Your task to perform on an android device: move a message to another label in the gmail app Image 0: 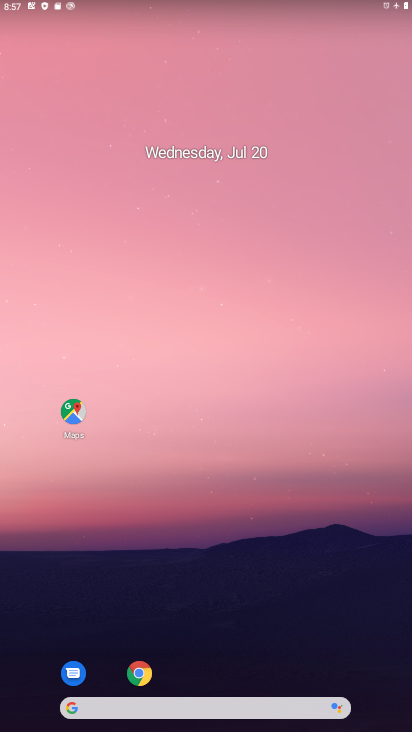
Step 0: drag from (212, 718) to (271, 233)
Your task to perform on an android device: move a message to another label in the gmail app Image 1: 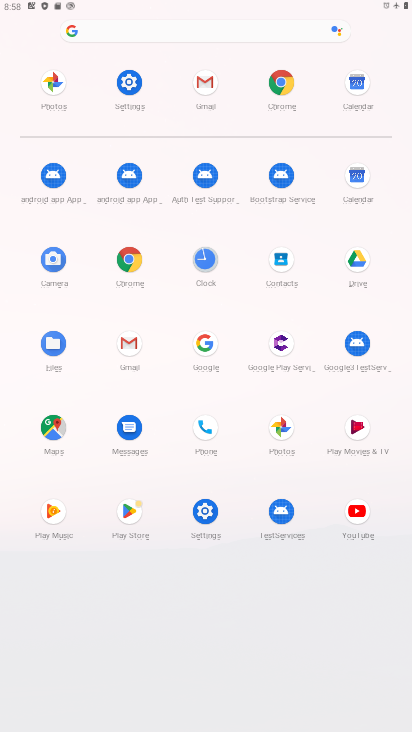
Step 1: click (132, 343)
Your task to perform on an android device: move a message to another label in the gmail app Image 2: 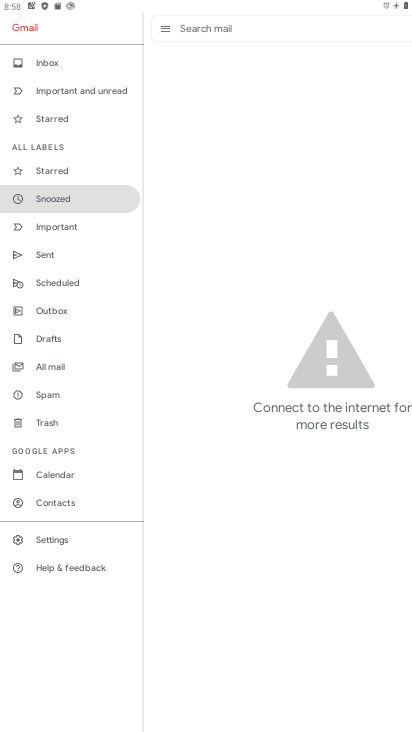
Step 2: click (55, 67)
Your task to perform on an android device: move a message to another label in the gmail app Image 3: 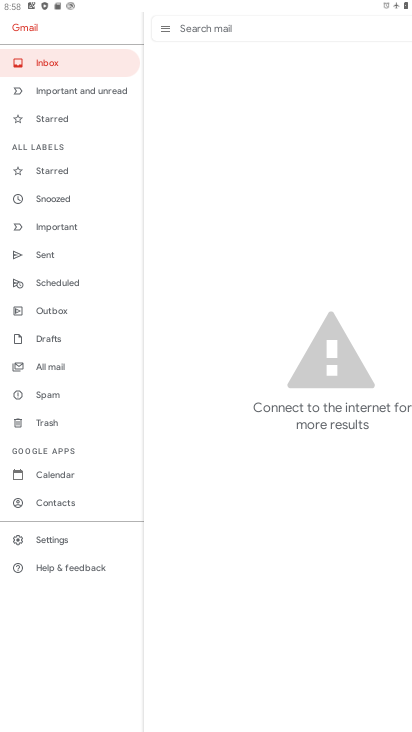
Step 3: task complete